Your task to perform on an android device: What's the news in Thailand? Image 0: 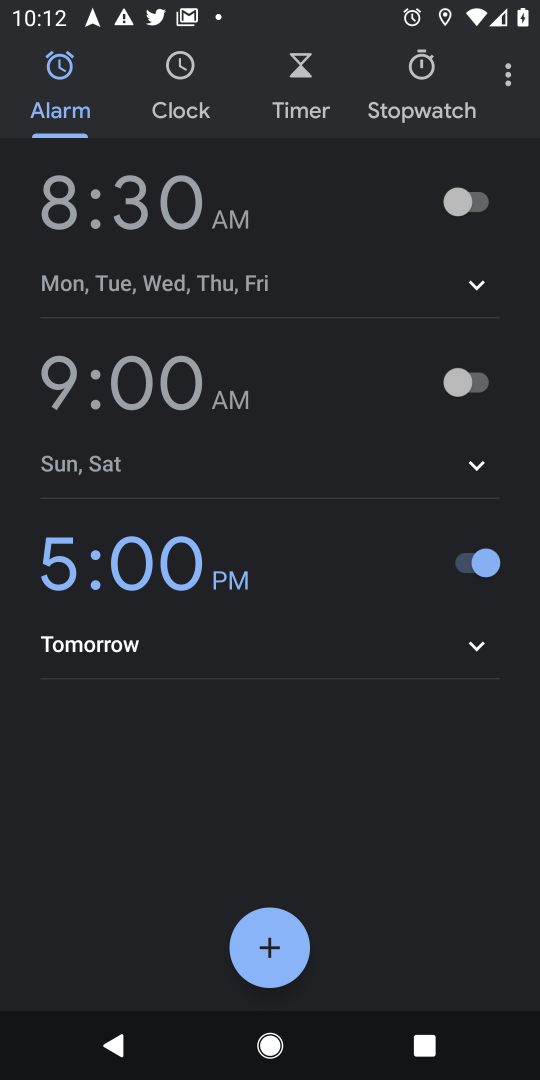
Step 0: press home button
Your task to perform on an android device: What's the news in Thailand? Image 1: 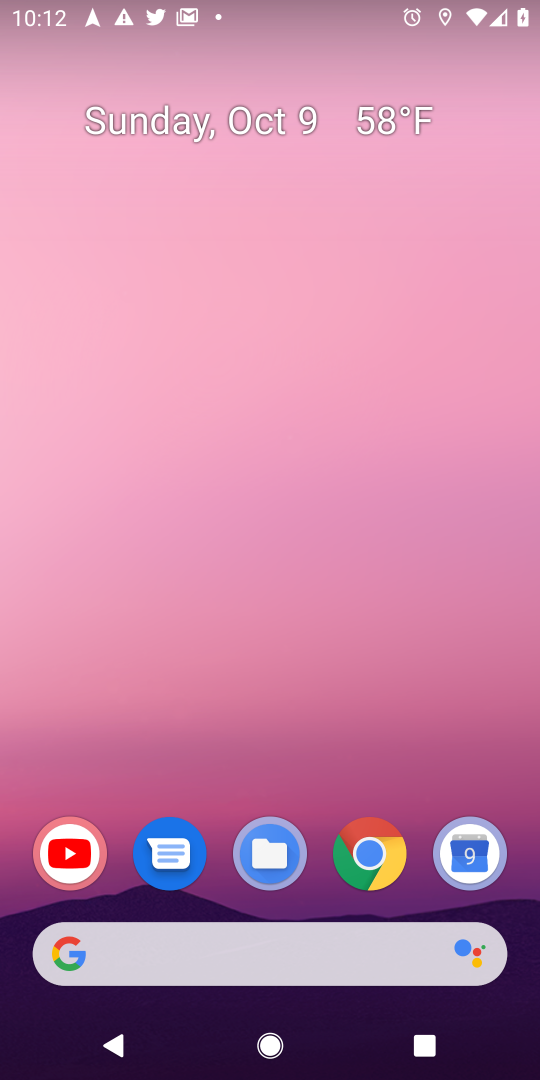
Step 1: click (386, 851)
Your task to perform on an android device: What's the news in Thailand? Image 2: 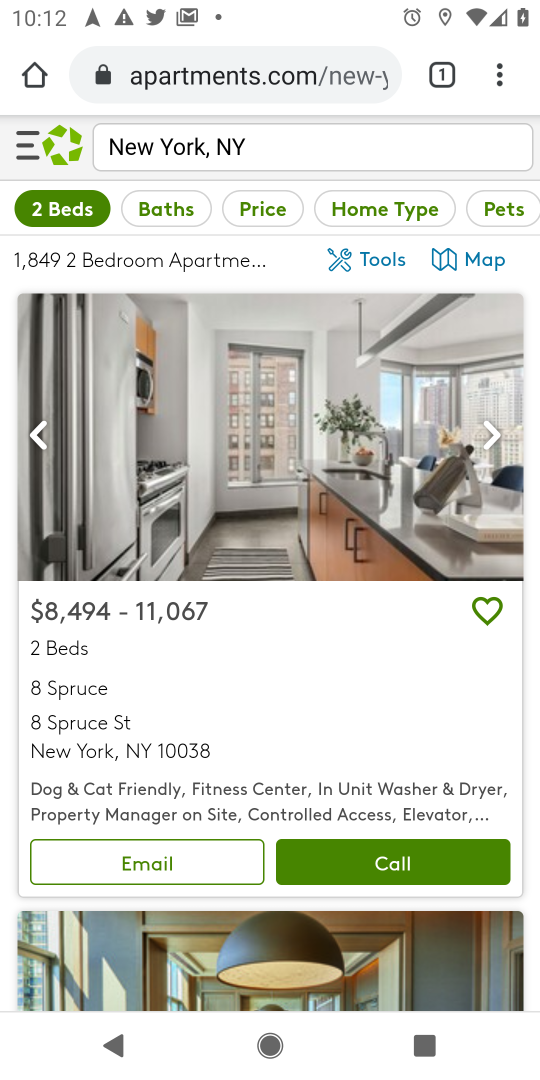
Step 2: click (295, 95)
Your task to perform on an android device: What's the news in Thailand? Image 3: 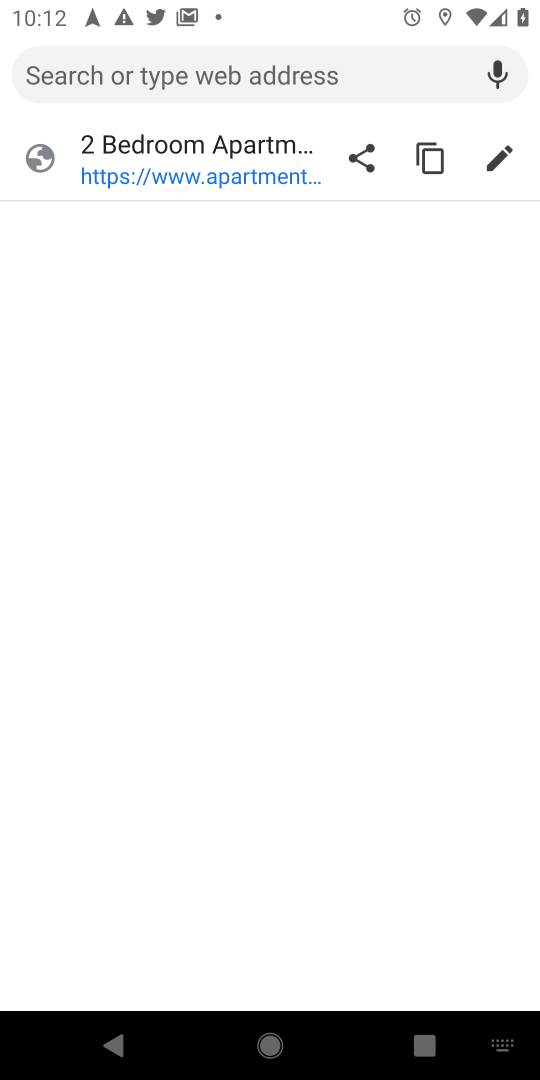
Step 3: type "news in thailand"
Your task to perform on an android device: What's the news in Thailand? Image 4: 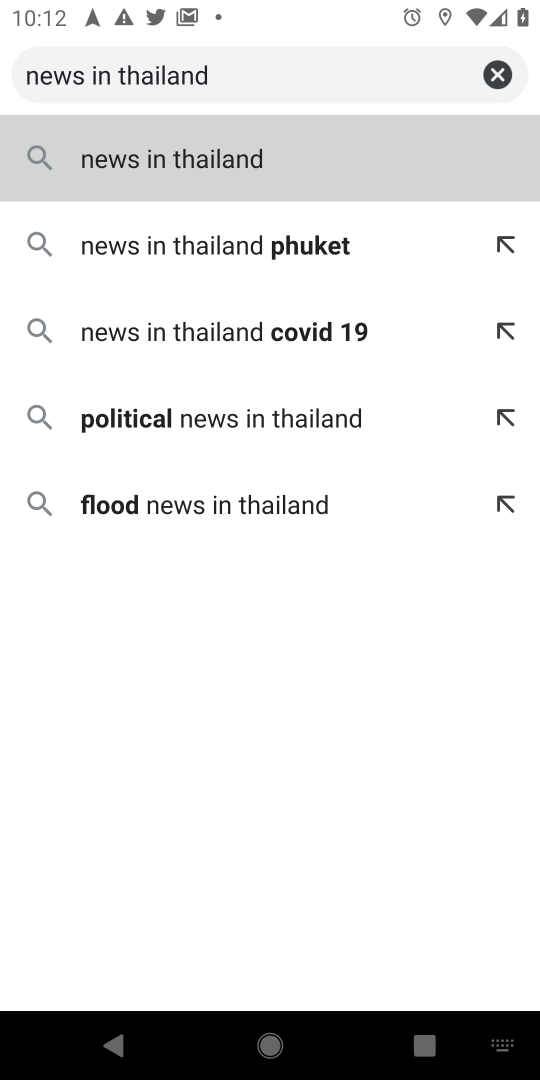
Step 4: click (439, 172)
Your task to perform on an android device: What's the news in Thailand? Image 5: 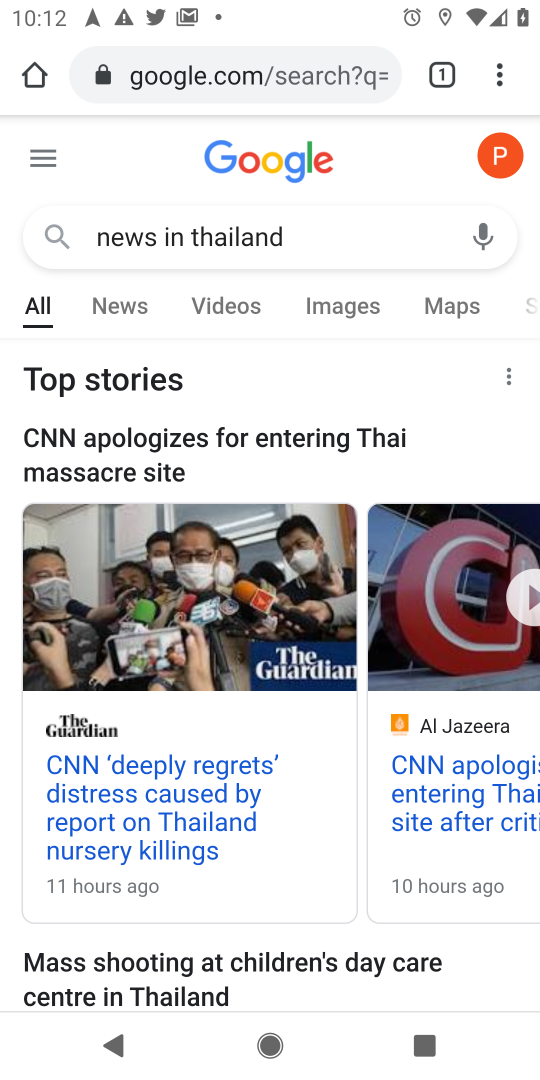
Step 5: task complete